Your task to perform on an android device: delete location history Image 0: 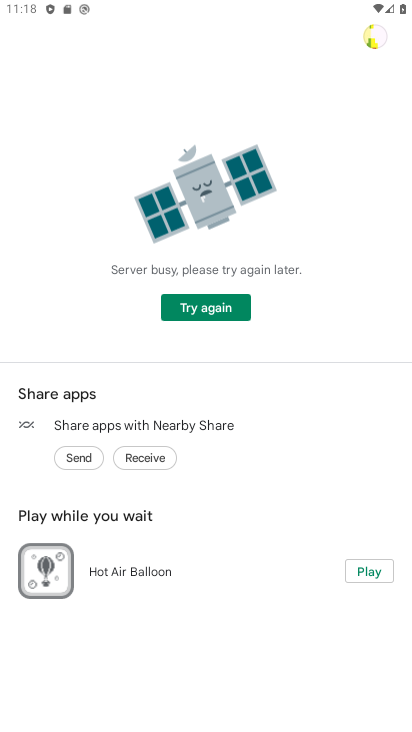
Step 0: press home button
Your task to perform on an android device: delete location history Image 1: 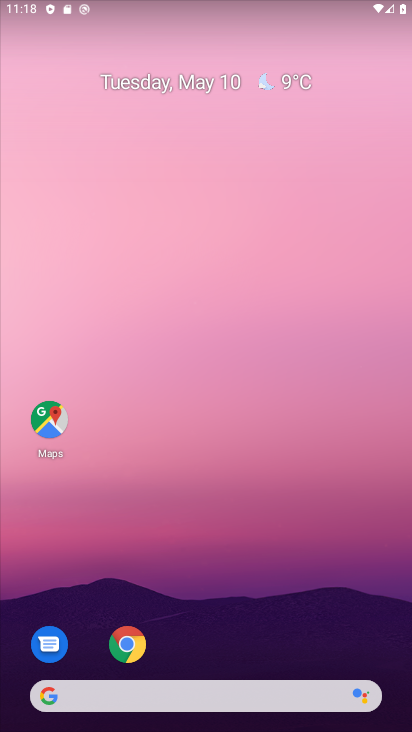
Step 1: drag from (247, 633) to (318, 129)
Your task to perform on an android device: delete location history Image 2: 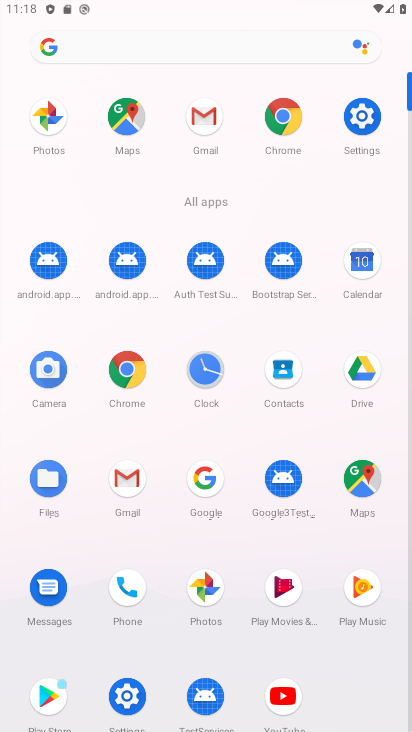
Step 2: click (366, 493)
Your task to perform on an android device: delete location history Image 3: 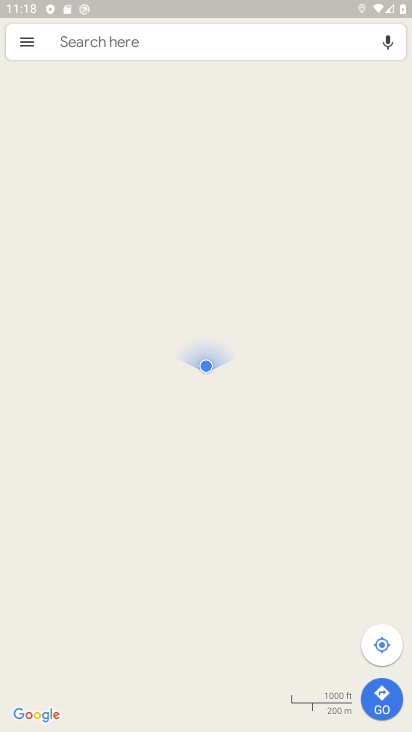
Step 3: click (28, 41)
Your task to perform on an android device: delete location history Image 4: 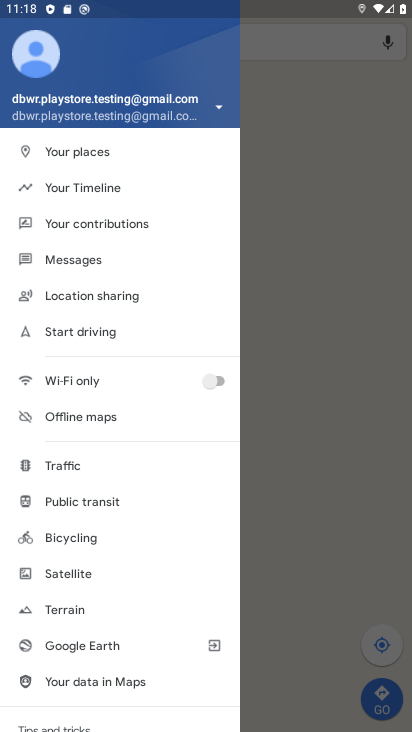
Step 4: click (90, 193)
Your task to perform on an android device: delete location history Image 5: 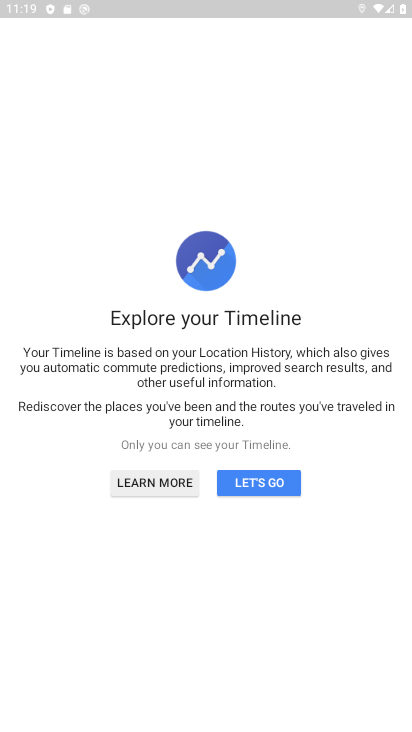
Step 5: click (243, 485)
Your task to perform on an android device: delete location history Image 6: 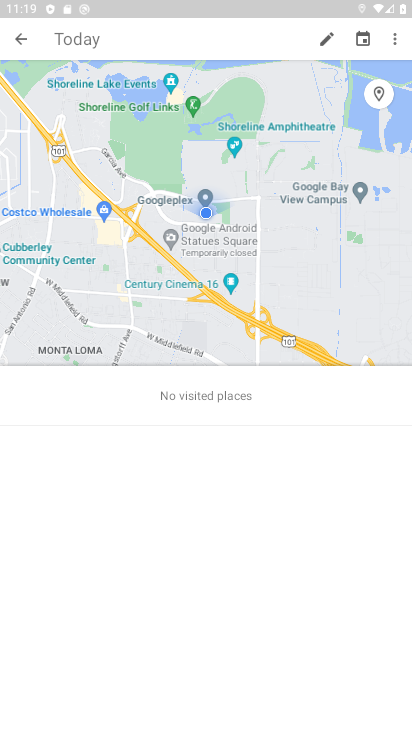
Step 6: click (399, 39)
Your task to perform on an android device: delete location history Image 7: 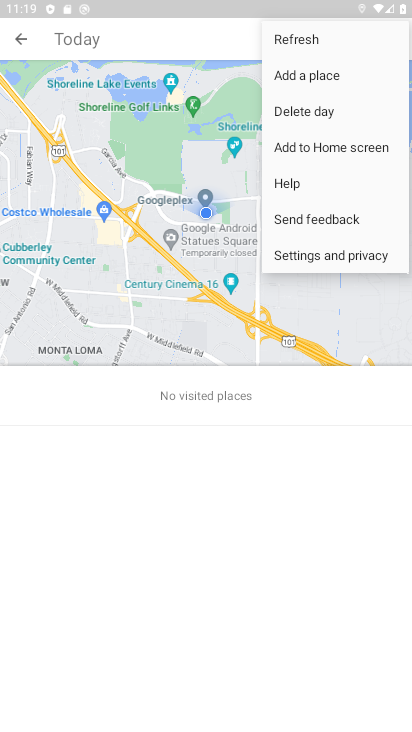
Step 7: click (281, 249)
Your task to perform on an android device: delete location history Image 8: 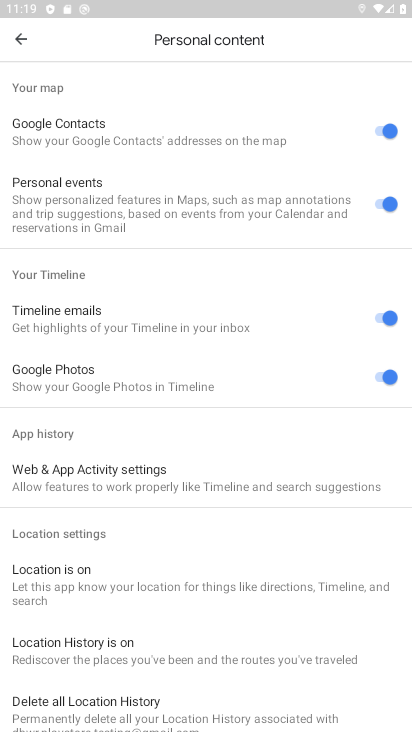
Step 8: click (130, 708)
Your task to perform on an android device: delete location history Image 9: 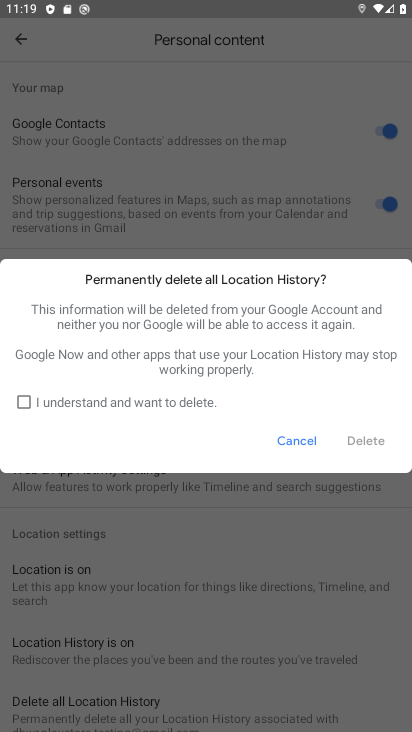
Step 9: click (99, 402)
Your task to perform on an android device: delete location history Image 10: 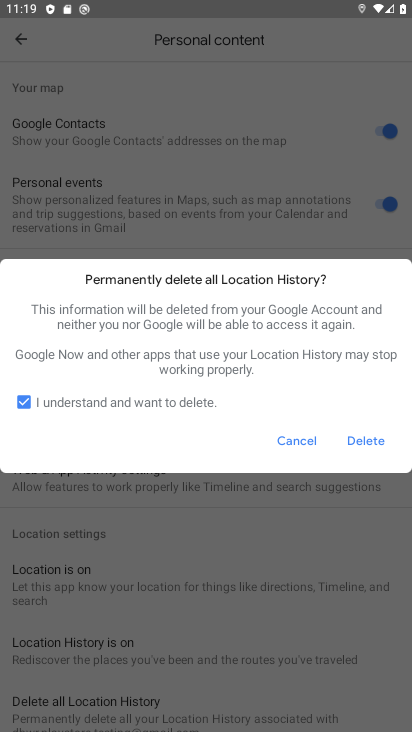
Step 10: click (374, 448)
Your task to perform on an android device: delete location history Image 11: 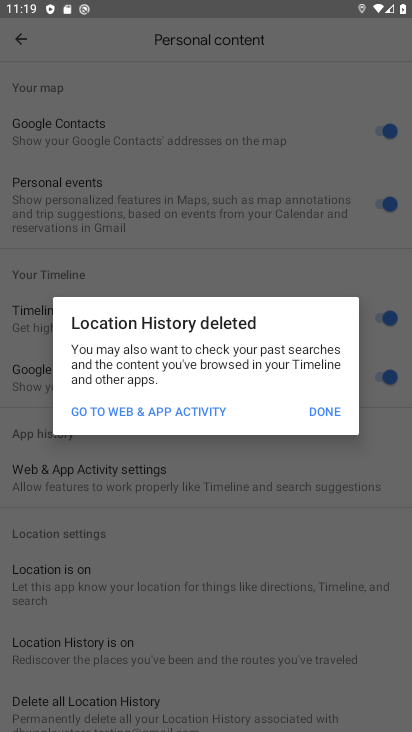
Step 11: click (340, 422)
Your task to perform on an android device: delete location history Image 12: 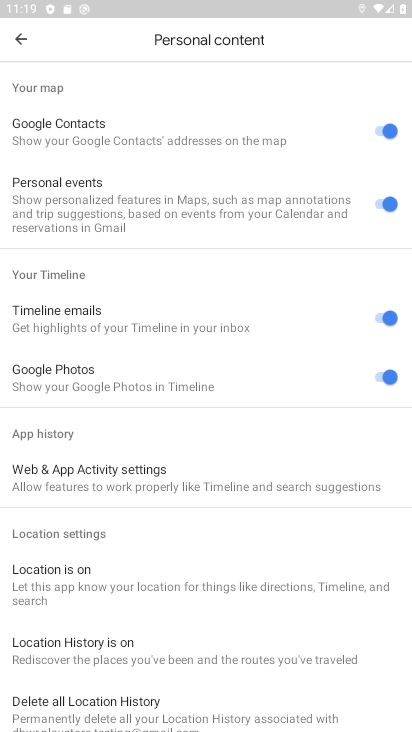
Step 12: task complete